Your task to perform on an android device: add a label to a message in the gmail app Image 0: 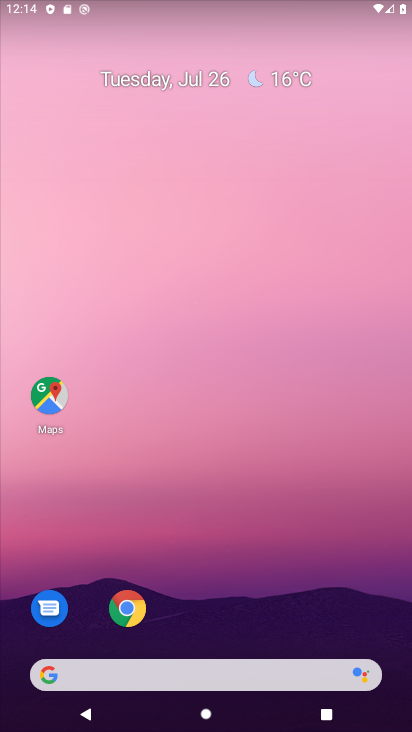
Step 0: drag from (263, 625) to (256, 22)
Your task to perform on an android device: add a label to a message in the gmail app Image 1: 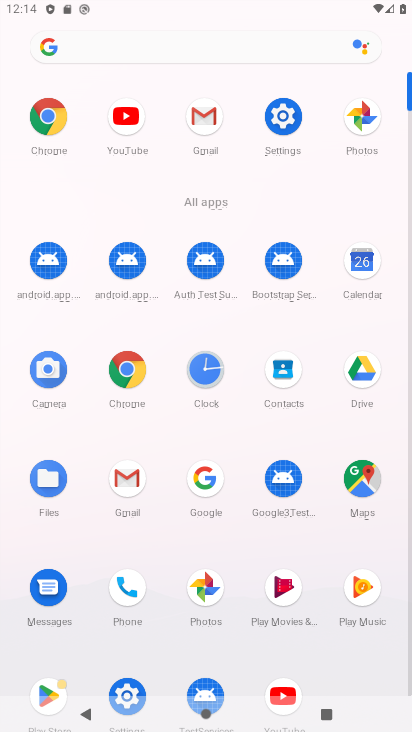
Step 1: click (206, 98)
Your task to perform on an android device: add a label to a message in the gmail app Image 2: 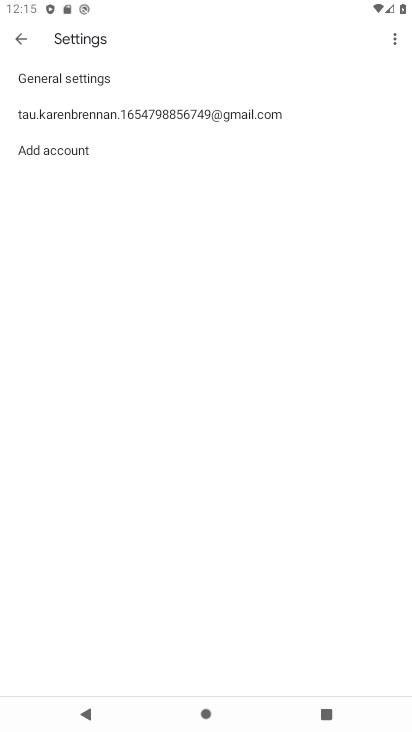
Step 2: task complete